Your task to perform on an android device: Open Yahoo.com Image 0: 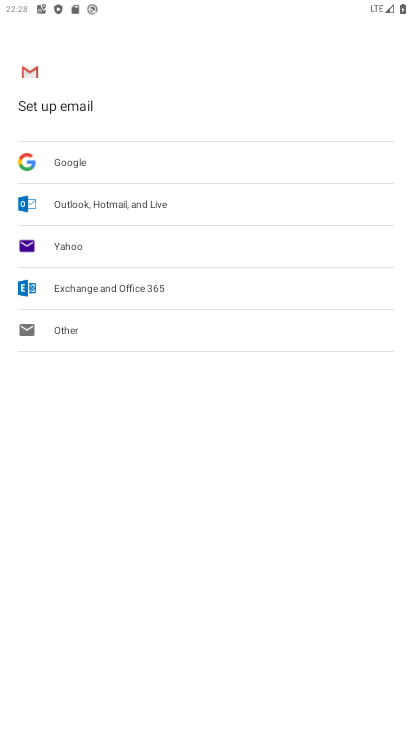
Step 0: press home button
Your task to perform on an android device: Open Yahoo.com Image 1: 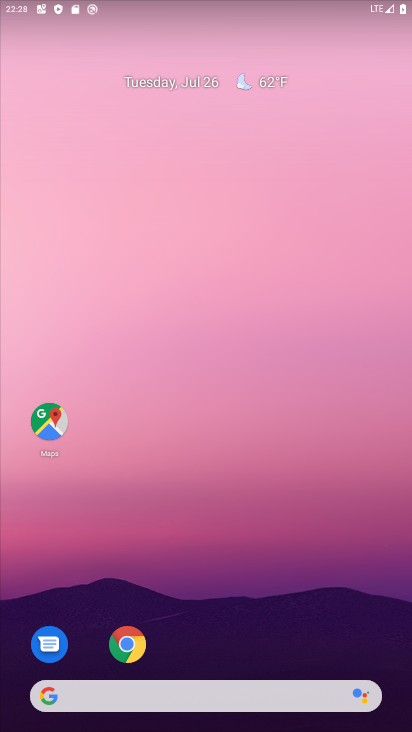
Step 1: click (133, 656)
Your task to perform on an android device: Open Yahoo.com Image 2: 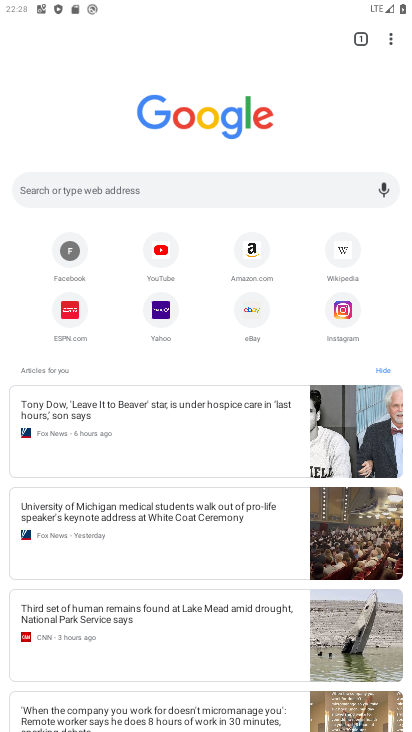
Step 2: click (153, 304)
Your task to perform on an android device: Open Yahoo.com Image 3: 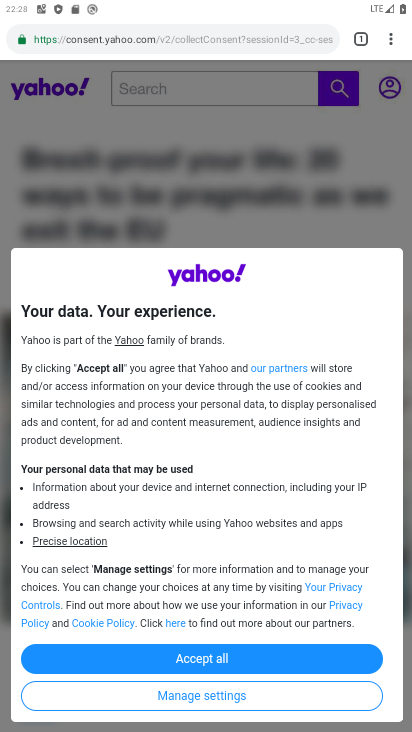
Step 3: task complete